Your task to perform on an android device: check battery use Image 0: 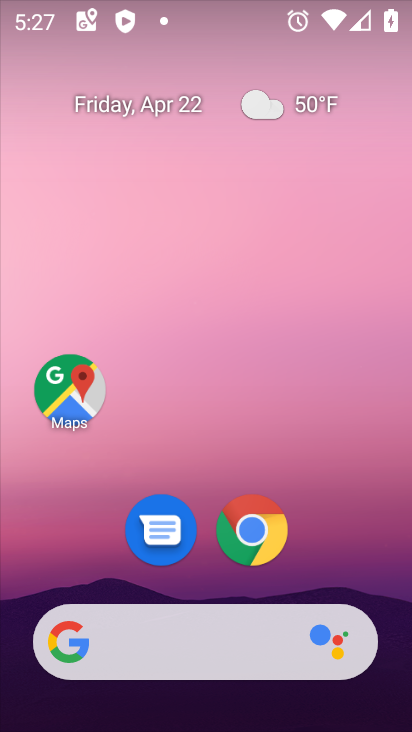
Step 0: drag from (324, 474) to (322, 106)
Your task to perform on an android device: check battery use Image 1: 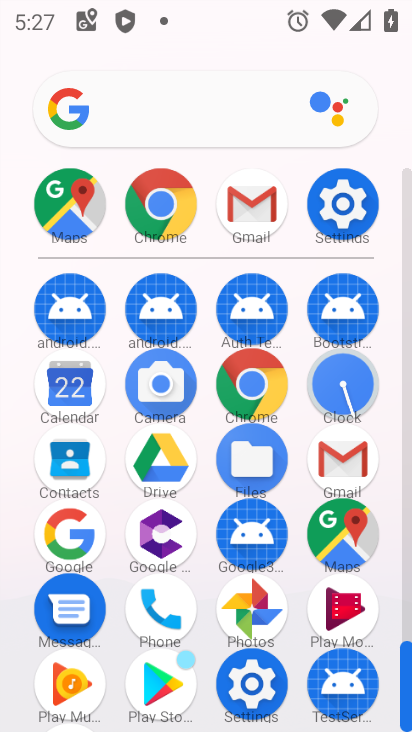
Step 1: click (339, 211)
Your task to perform on an android device: check battery use Image 2: 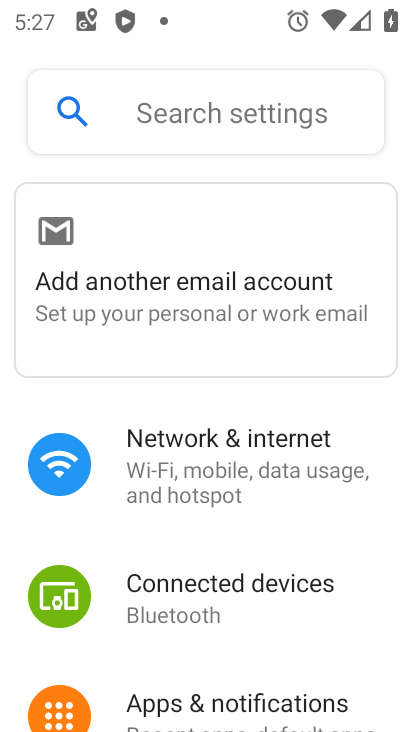
Step 2: drag from (246, 628) to (277, 266)
Your task to perform on an android device: check battery use Image 3: 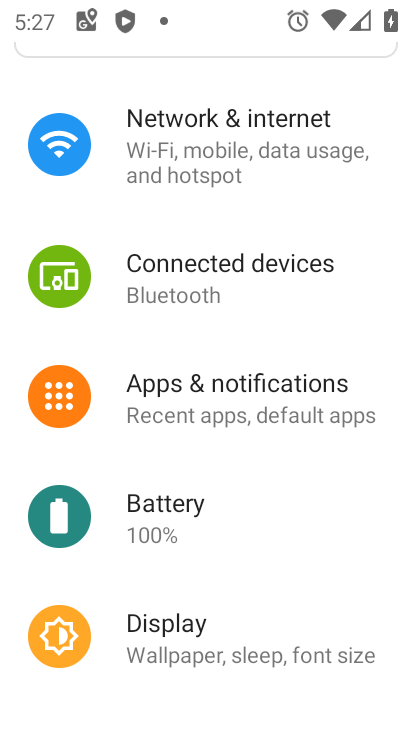
Step 3: click (176, 499)
Your task to perform on an android device: check battery use Image 4: 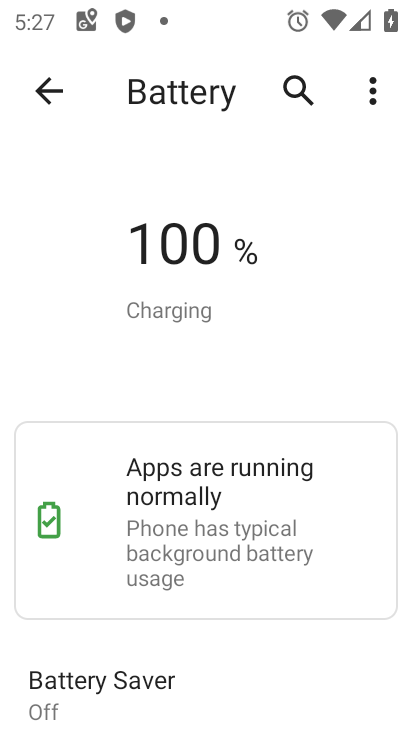
Step 4: task complete